Your task to perform on an android device: turn on bluetooth scan Image 0: 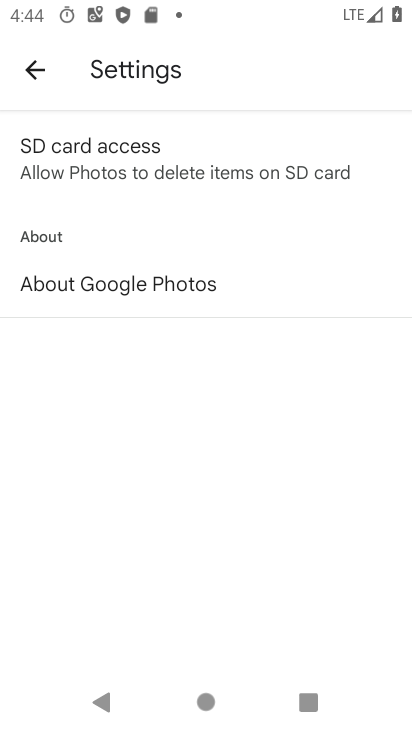
Step 0: press home button
Your task to perform on an android device: turn on bluetooth scan Image 1: 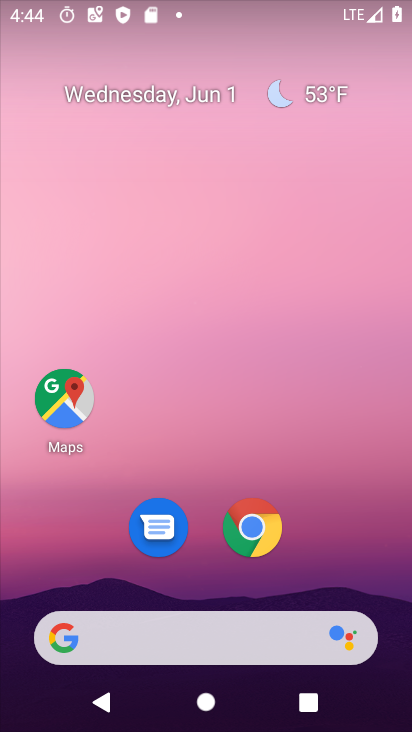
Step 1: drag from (322, 510) to (364, 52)
Your task to perform on an android device: turn on bluetooth scan Image 2: 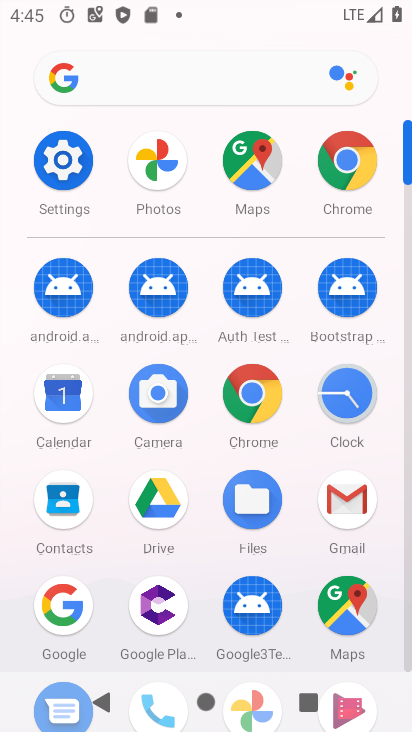
Step 2: click (55, 160)
Your task to perform on an android device: turn on bluetooth scan Image 3: 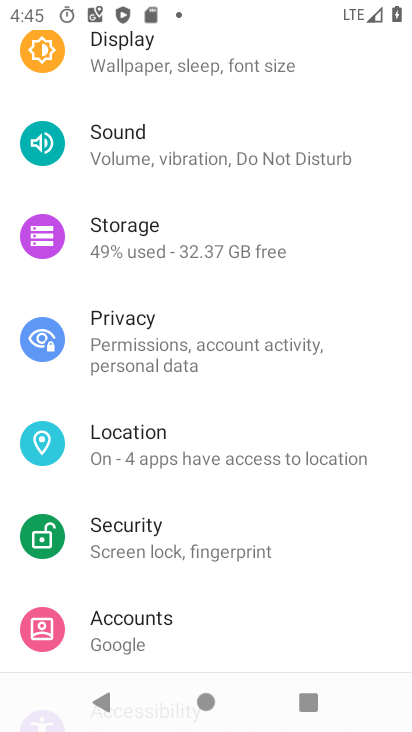
Step 3: click (194, 449)
Your task to perform on an android device: turn on bluetooth scan Image 4: 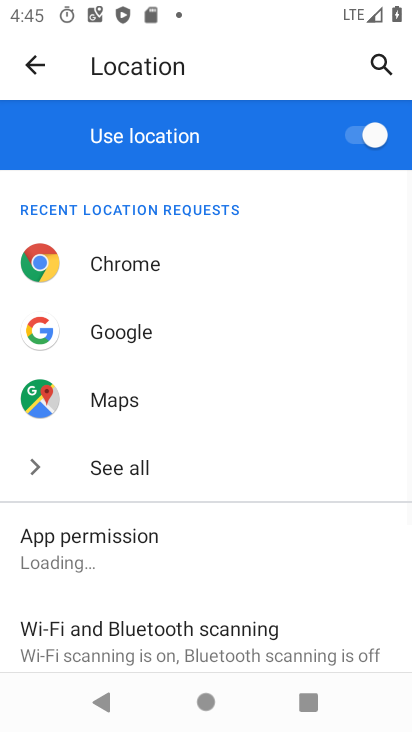
Step 4: drag from (310, 554) to (340, 232)
Your task to perform on an android device: turn on bluetooth scan Image 5: 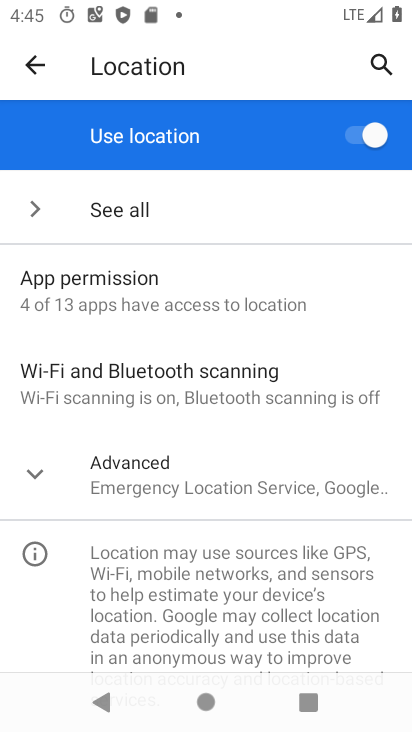
Step 5: click (164, 372)
Your task to perform on an android device: turn on bluetooth scan Image 6: 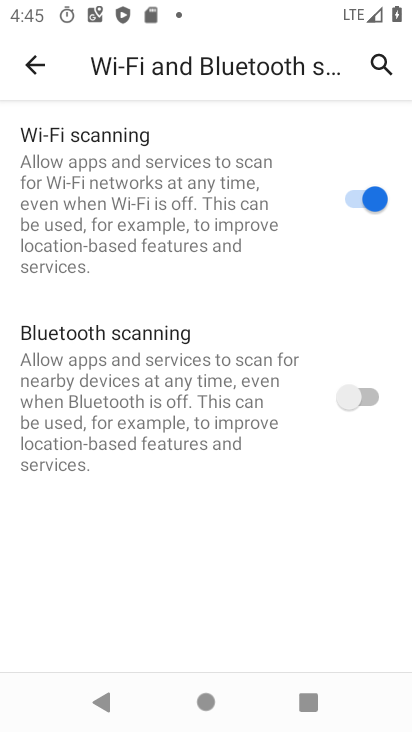
Step 6: click (360, 399)
Your task to perform on an android device: turn on bluetooth scan Image 7: 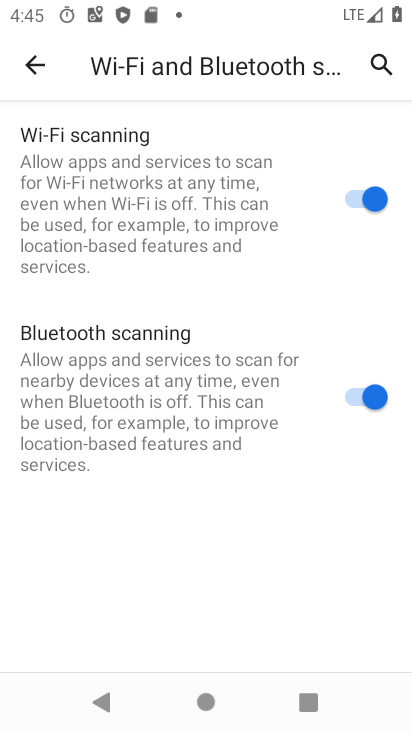
Step 7: task complete